Your task to perform on an android device: Open Chrome and go to settings Image 0: 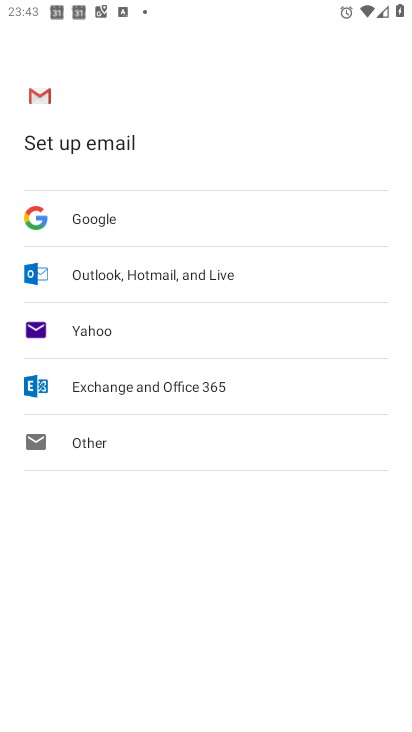
Step 0: press home button
Your task to perform on an android device: Open Chrome and go to settings Image 1: 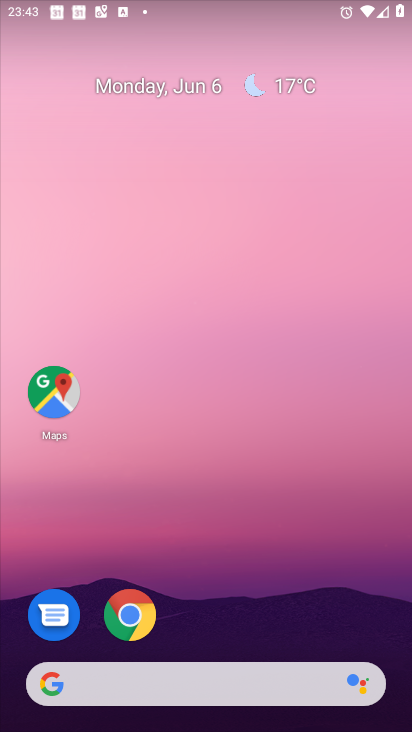
Step 1: click (131, 620)
Your task to perform on an android device: Open Chrome and go to settings Image 2: 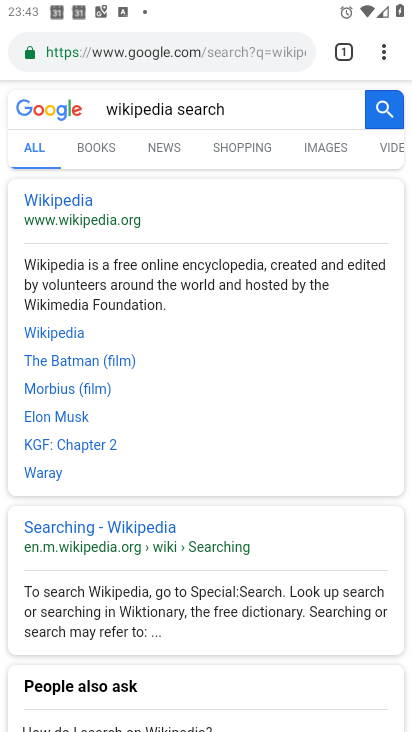
Step 2: click (380, 47)
Your task to perform on an android device: Open Chrome and go to settings Image 3: 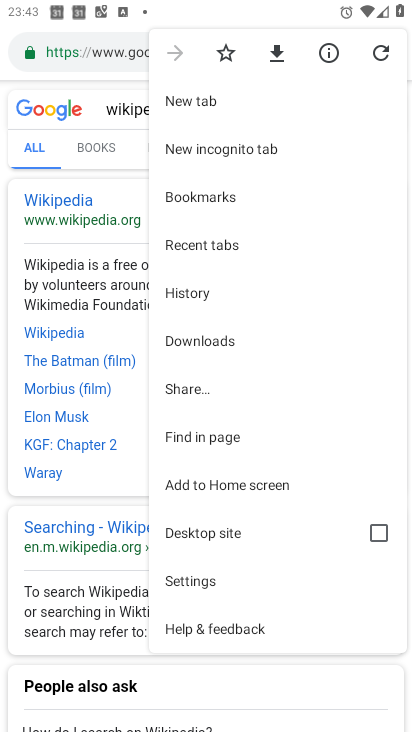
Step 3: click (178, 582)
Your task to perform on an android device: Open Chrome and go to settings Image 4: 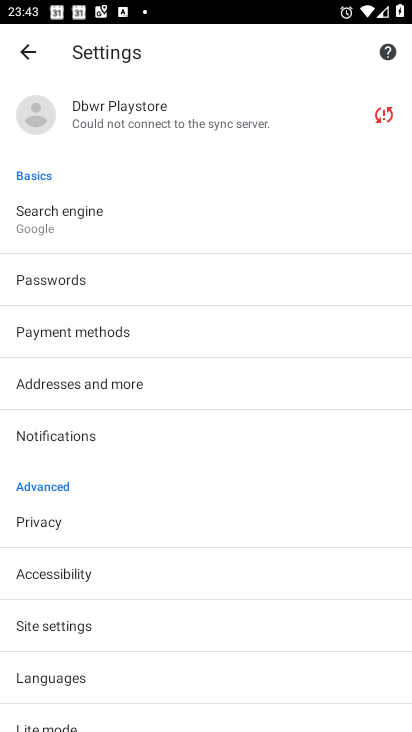
Step 4: task complete